Your task to perform on an android device: Open privacy settings Image 0: 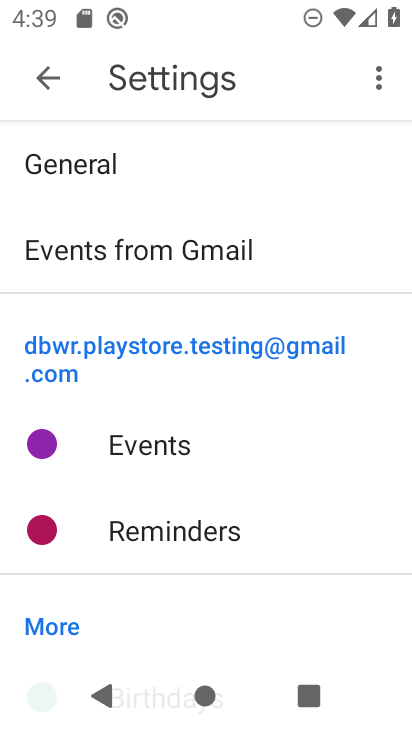
Step 0: press home button
Your task to perform on an android device: Open privacy settings Image 1: 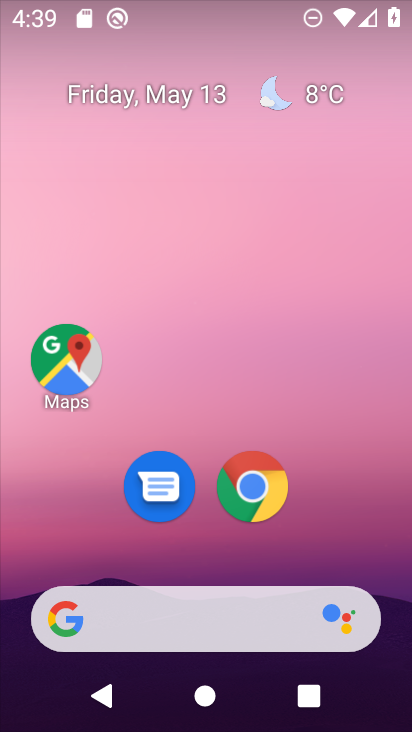
Step 1: drag from (306, 514) to (333, 90)
Your task to perform on an android device: Open privacy settings Image 2: 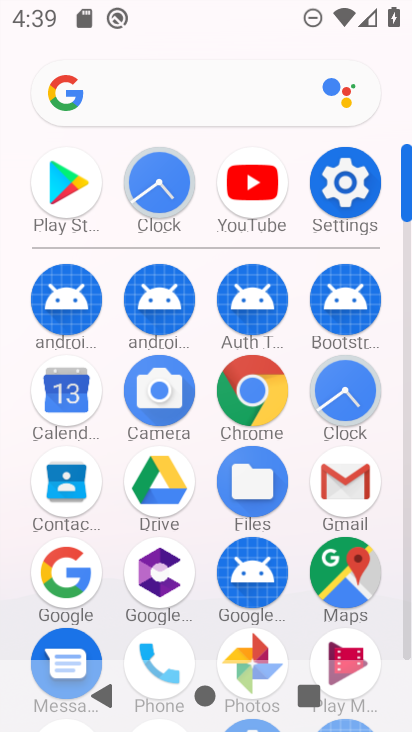
Step 2: click (333, 208)
Your task to perform on an android device: Open privacy settings Image 3: 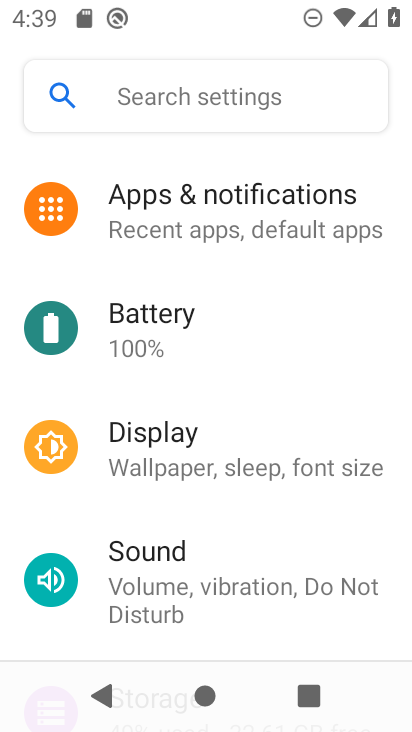
Step 3: drag from (271, 526) to (303, 7)
Your task to perform on an android device: Open privacy settings Image 4: 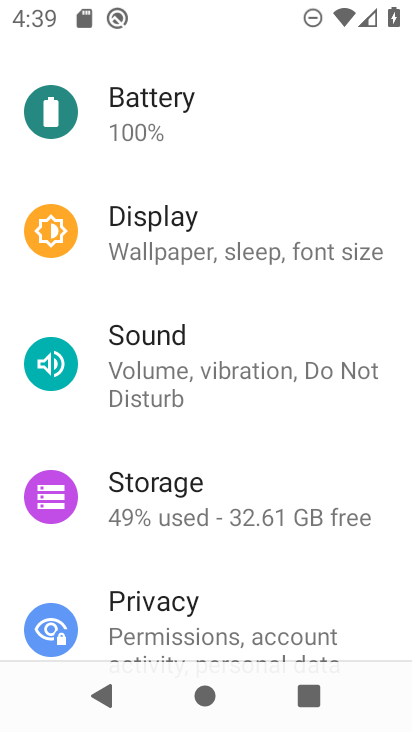
Step 4: click (249, 632)
Your task to perform on an android device: Open privacy settings Image 5: 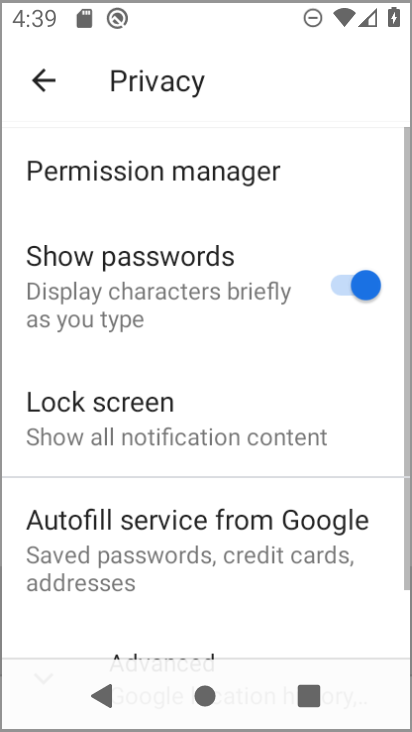
Step 5: task complete